Your task to perform on an android device: Go to accessibility settings Image 0: 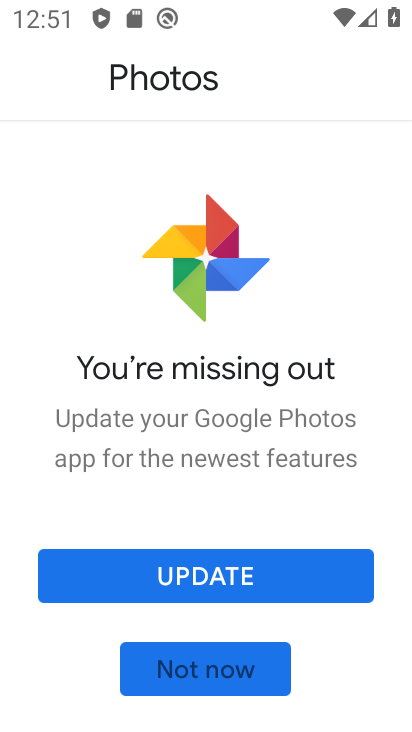
Step 0: press home button
Your task to perform on an android device: Go to accessibility settings Image 1: 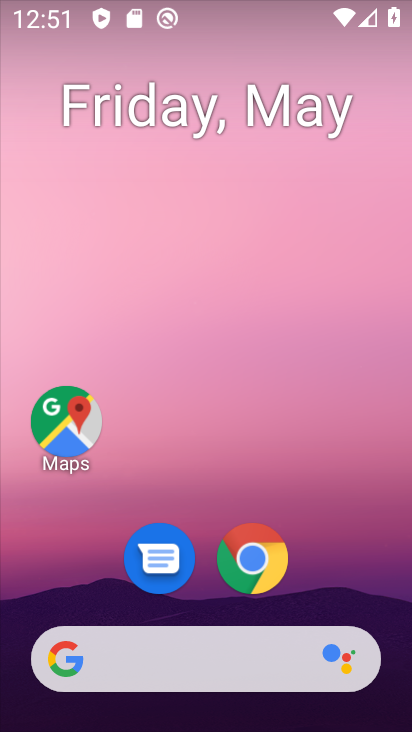
Step 1: drag from (370, 605) to (323, 151)
Your task to perform on an android device: Go to accessibility settings Image 2: 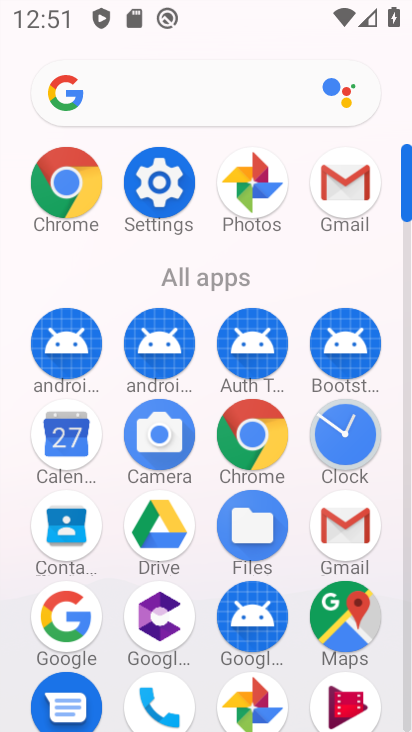
Step 2: click (171, 197)
Your task to perform on an android device: Go to accessibility settings Image 3: 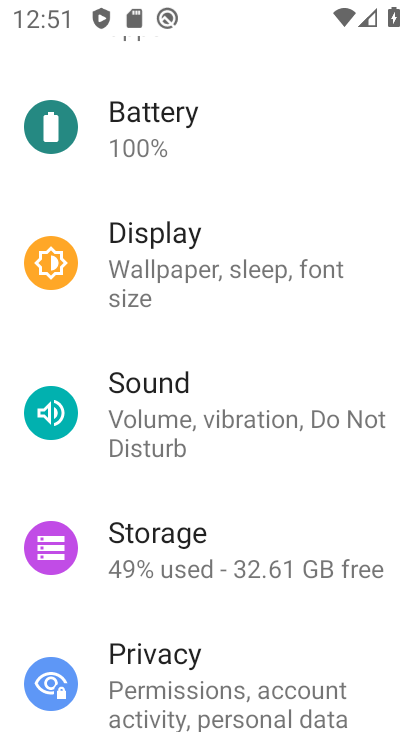
Step 3: drag from (250, 628) to (213, 174)
Your task to perform on an android device: Go to accessibility settings Image 4: 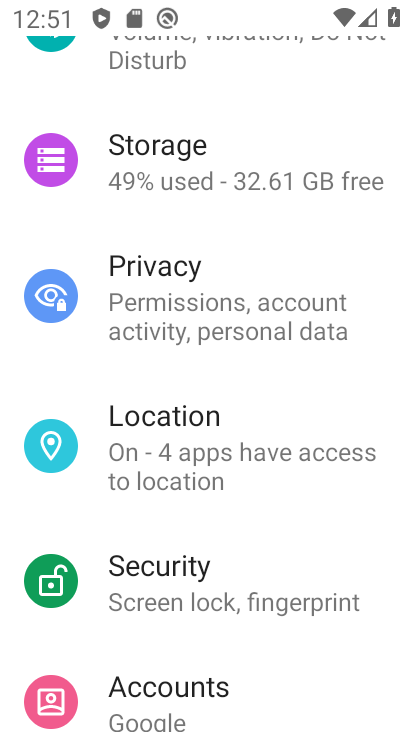
Step 4: drag from (277, 648) to (239, 275)
Your task to perform on an android device: Go to accessibility settings Image 5: 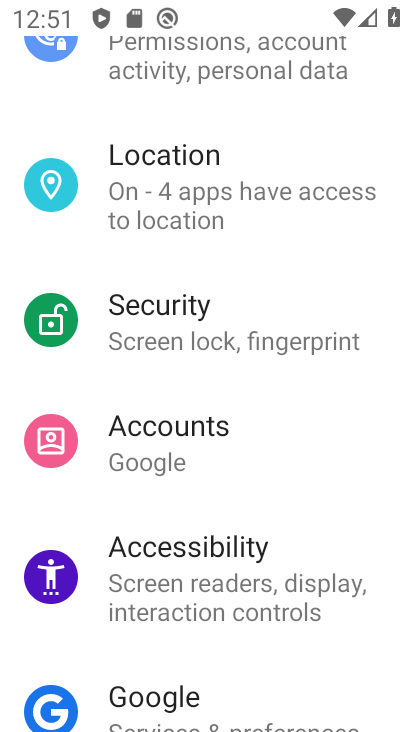
Step 5: click (242, 577)
Your task to perform on an android device: Go to accessibility settings Image 6: 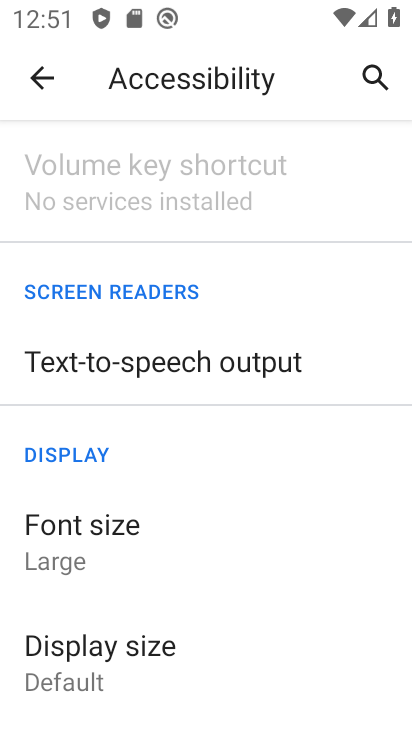
Step 6: task complete